Your task to perform on an android device: Is it going to rain this weekend? Image 0: 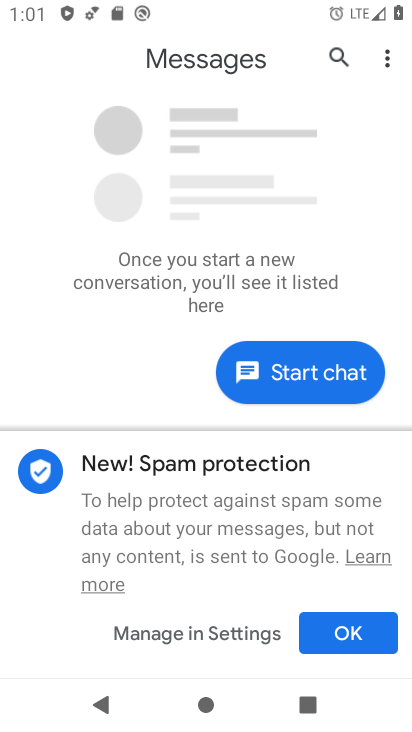
Step 0: press home button
Your task to perform on an android device: Is it going to rain this weekend? Image 1: 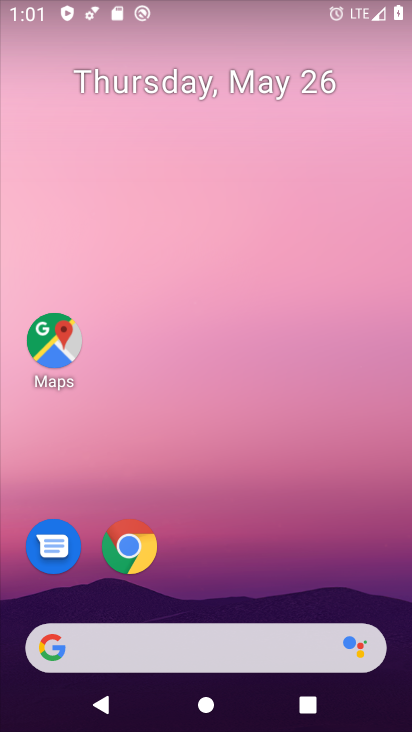
Step 1: drag from (385, 582) to (185, 36)
Your task to perform on an android device: Is it going to rain this weekend? Image 2: 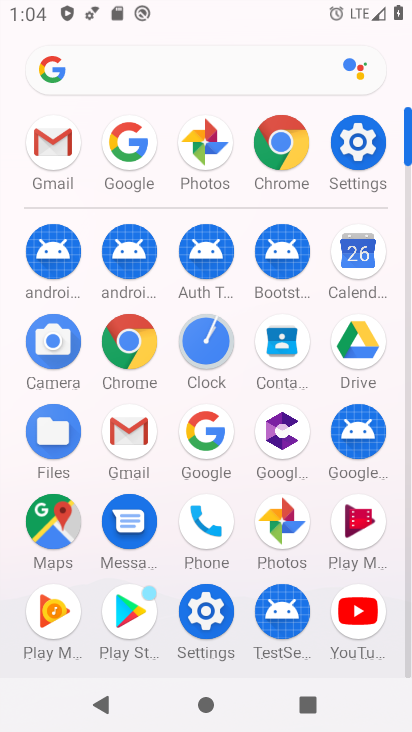
Step 2: click (192, 440)
Your task to perform on an android device: Is it going to rain this weekend? Image 3: 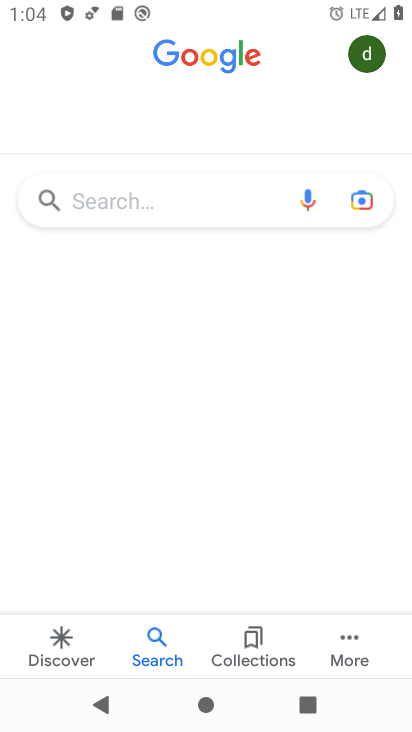
Step 3: click (188, 195)
Your task to perform on an android device: Is it going to rain this weekend? Image 4: 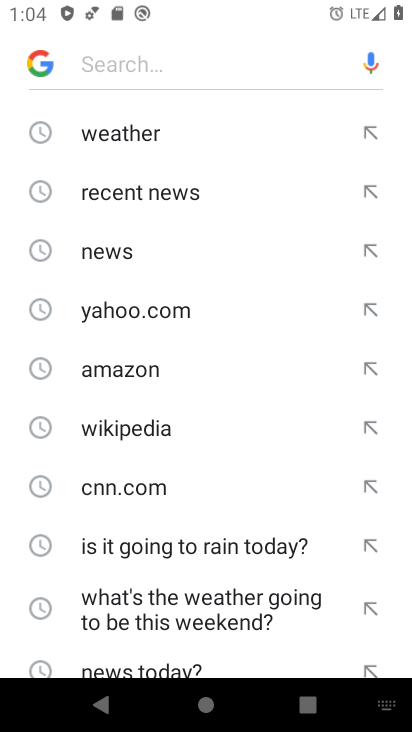
Step 4: drag from (222, 605) to (251, 222)
Your task to perform on an android device: Is it going to rain this weekend? Image 5: 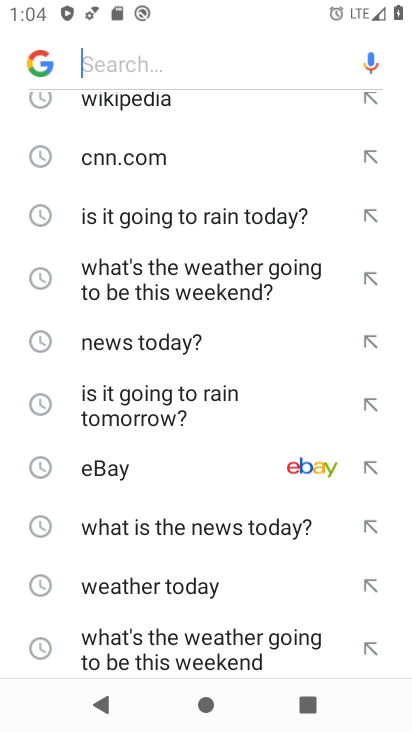
Step 5: drag from (220, 647) to (266, 251)
Your task to perform on an android device: Is it going to rain this weekend? Image 6: 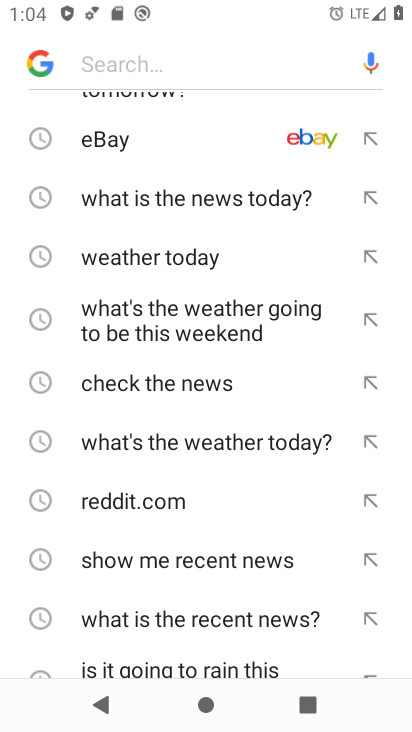
Step 6: drag from (212, 658) to (211, 450)
Your task to perform on an android device: Is it going to rain this weekend? Image 7: 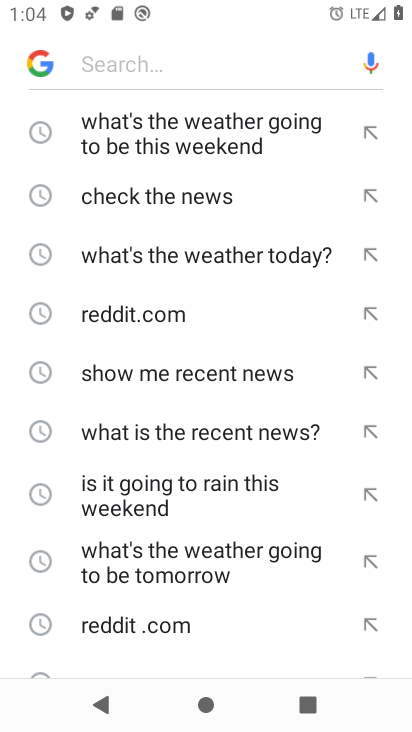
Step 7: click (200, 500)
Your task to perform on an android device: Is it going to rain this weekend? Image 8: 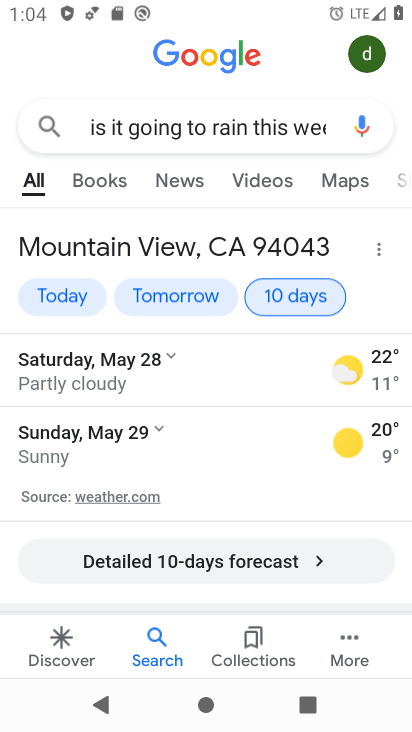
Step 8: task complete